Your task to perform on an android device: see sites visited before in the chrome app Image 0: 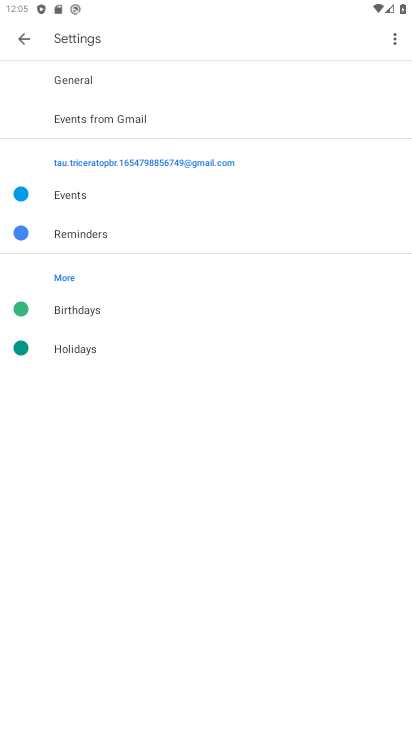
Step 0: press home button
Your task to perform on an android device: see sites visited before in the chrome app Image 1: 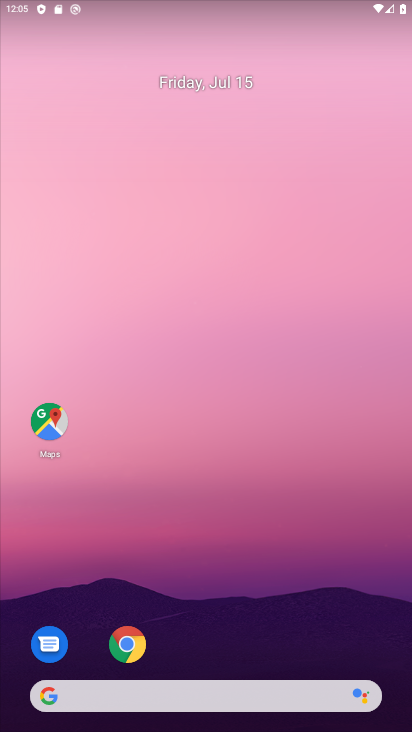
Step 1: click (128, 645)
Your task to perform on an android device: see sites visited before in the chrome app Image 2: 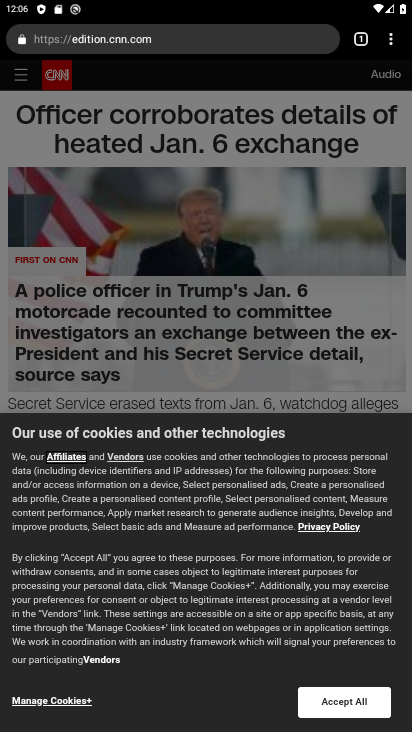
Step 2: click (390, 43)
Your task to perform on an android device: see sites visited before in the chrome app Image 3: 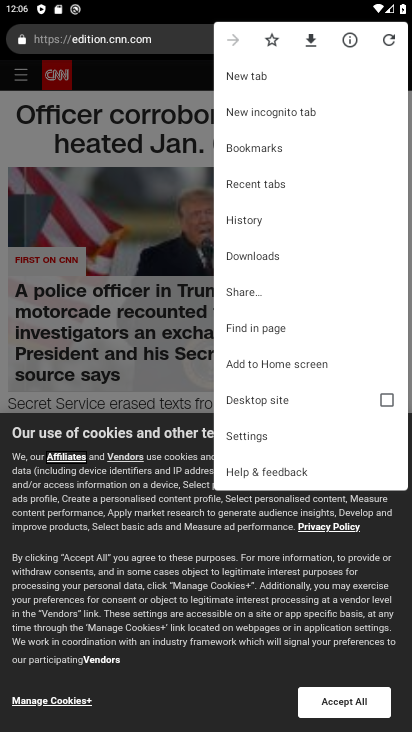
Step 3: click (247, 175)
Your task to perform on an android device: see sites visited before in the chrome app Image 4: 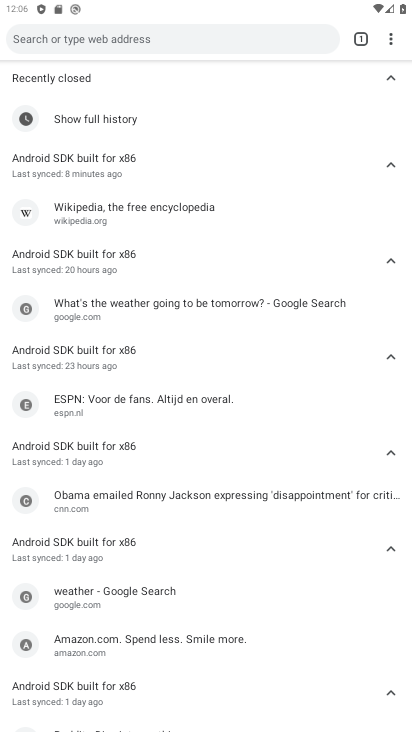
Step 4: task complete